Your task to perform on an android device: Search for pizza restaurants on Maps Image 0: 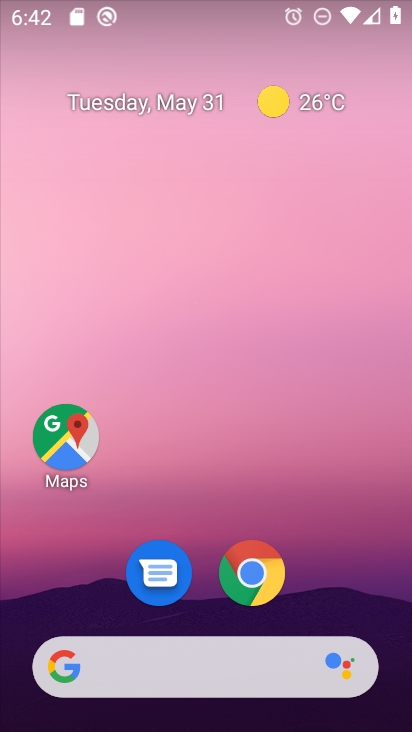
Step 0: drag from (403, 643) to (259, 54)
Your task to perform on an android device: Search for pizza restaurants on Maps Image 1: 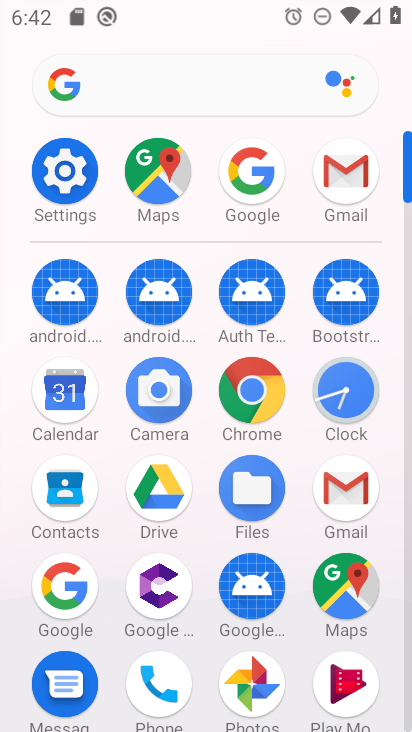
Step 1: click (346, 578)
Your task to perform on an android device: Search for pizza restaurants on Maps Image 2: 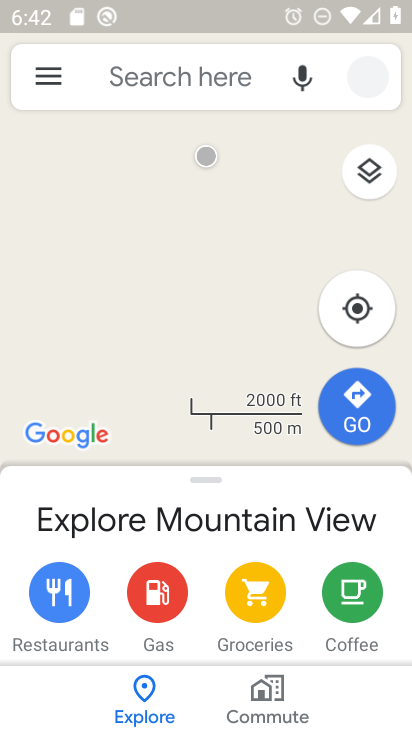
Step 2: click (160, 67)
Your task to perform on an android device: Search for pizza restaurants on Maps Image 3: 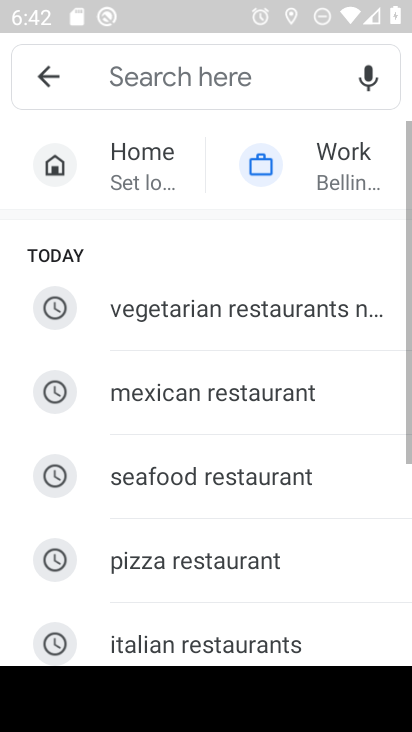
Step 3: click (195, 571)
Your task to perform on an android device: Search for pizza restaurants on Maps Image 4: 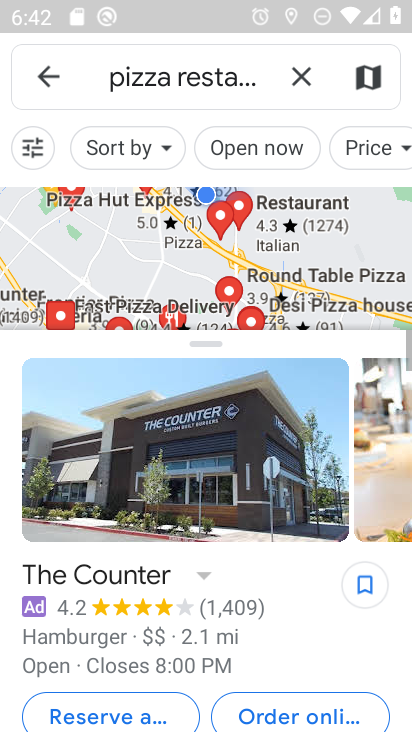
Step 4: task complete